Your task to perform on an android device: create a new album in the google photos Image 0: 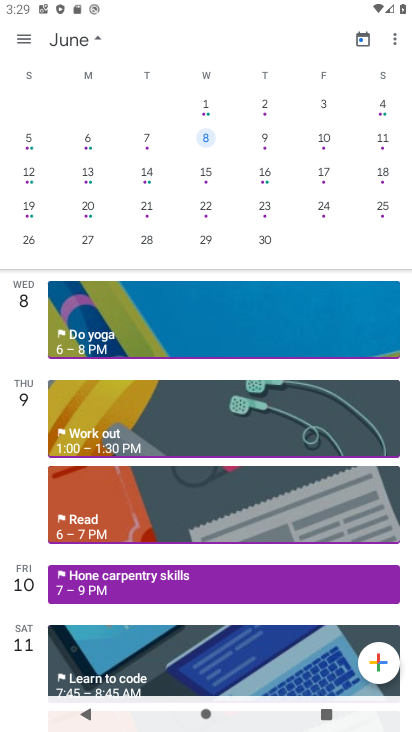
Step 0: press home button
Your task to perform on an android device: create a new album in the google photos Image 1: 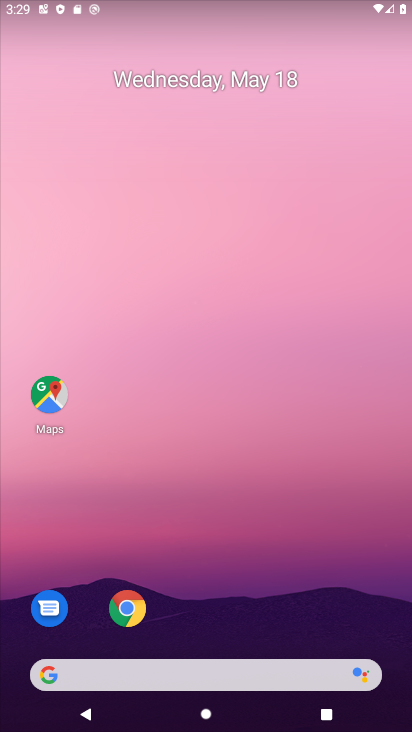
Step 1: drag from (224, 615) to (156, 119)
Your task to perform on an android device: create a new album in the google photos Image 2: 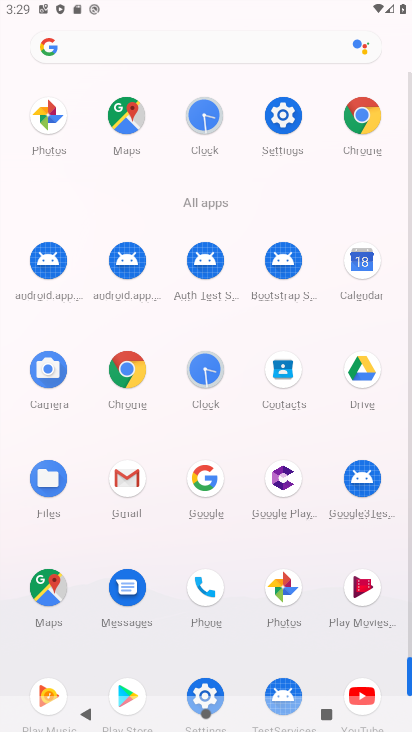
Step 2: click (70, 111)
Your task to perform on an android device: create a new album in the google photos Image 3: 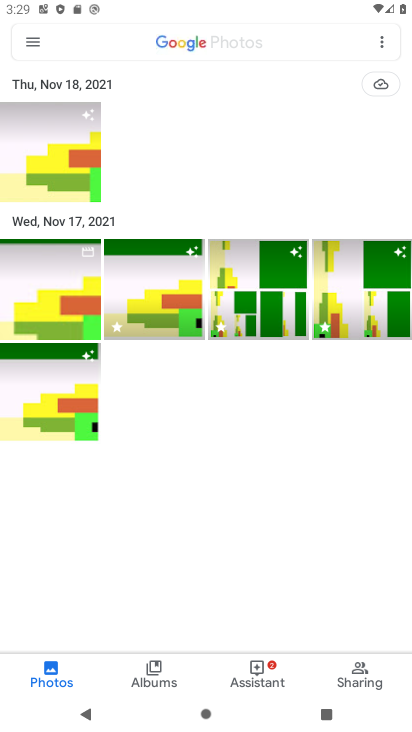
Step 3: click (157, 299)
Your task to perform on an android device: create a new album in the google photos Image 4: 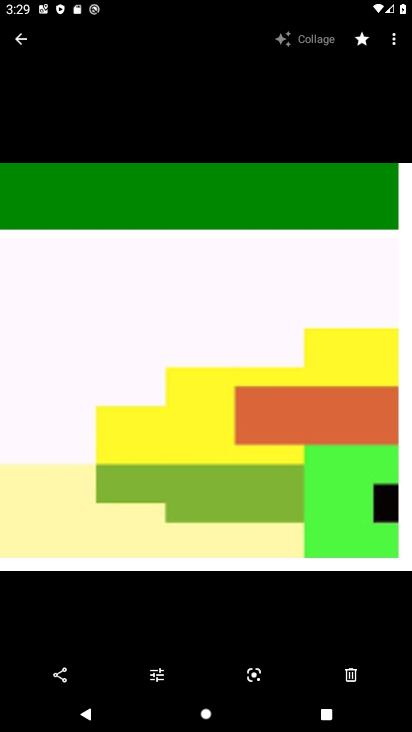
Step 4: click (402, 46)
Your task to perform on an android device: create a new album in the google photos Image 5: 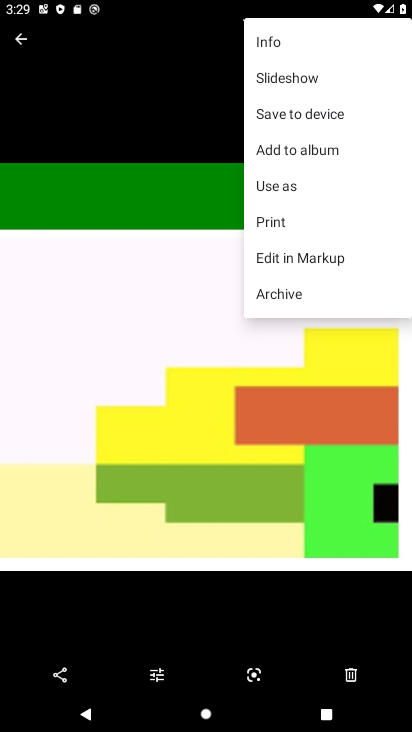
Step 5: click (306, 141)
Your task to perform on an android device: create a new album in the google photos Image 6: 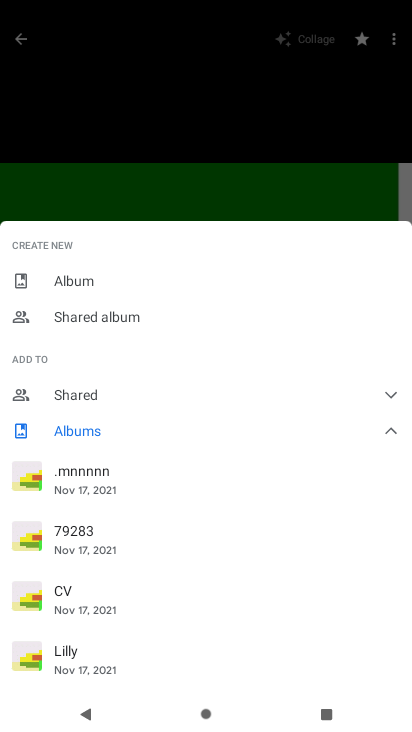
Step 6: click (65, 293)
Your task to perform on an android device: create a new album in the google photos Image 7: 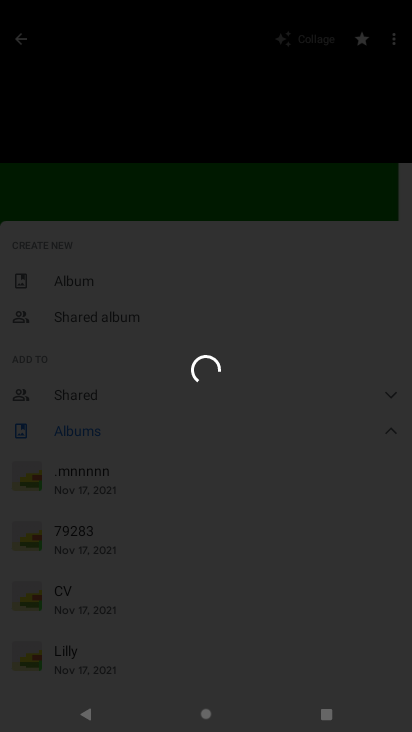
Step 7: task complete